Your task to perform on an android device: Open Google Chrome and click the shortcut for Amazon.com Image 0: 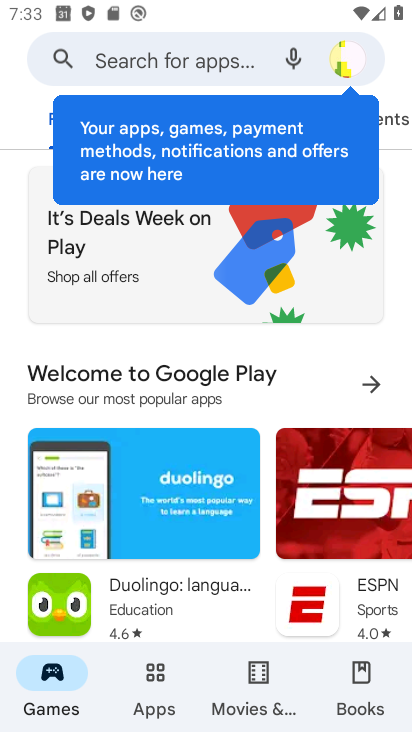
Step 0: press home button
Your task to perform on an android device: Open Google Chrome and click the shortcut for Amazon.com Image 1: 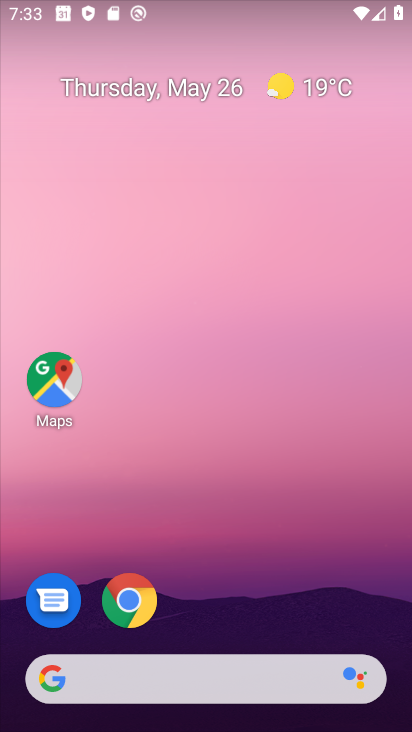
Step 1: drag from (190, 688) to (142, 86)
Your task to perform on an android device: Open Google Chrome and click the shortcut for Amazon.com Image 2: 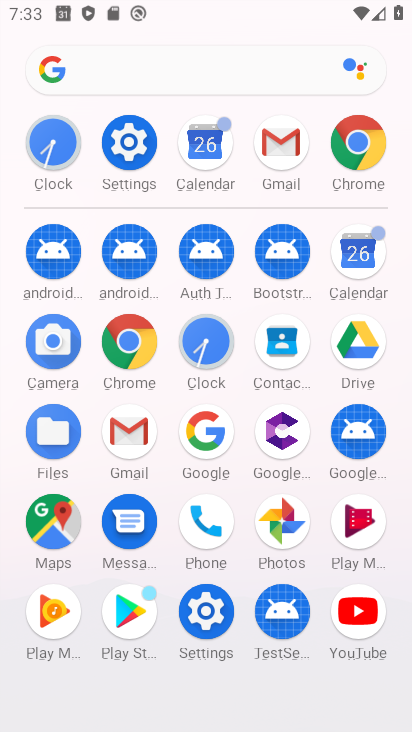
Step 2: click (341, 144)
Your task to perform on an android device: Open Google Chrome and click the shortcut for Amazon.com Image 3: 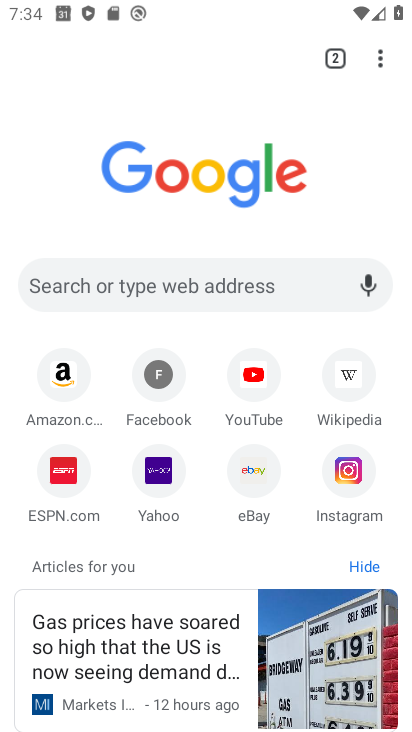
Step 3: click (71, 380)
Your task to perform on an android device: Open Google Chrome and click the shortcut for Amazon.com Image 4: 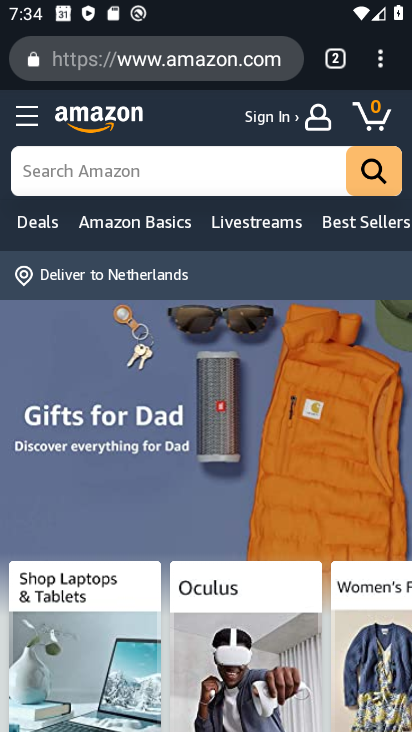
Step 4: click (383, 63)
Your task to perform on an android device: Open Google Chrome and click the shortcut for Amazon.com Image 5: 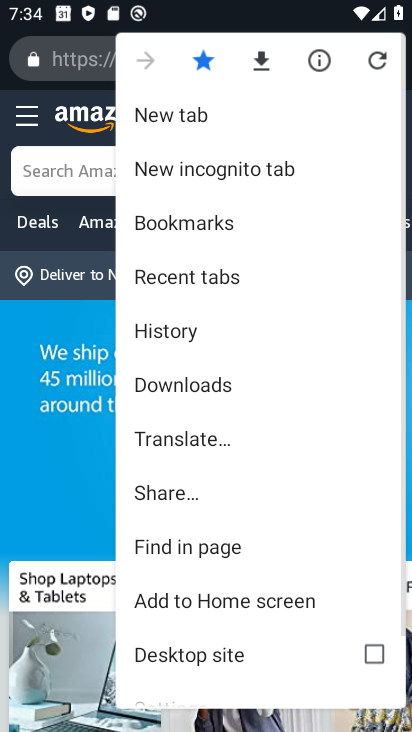
Step 5: click (245, 593)
Your task to perform on an android device: Open Google Chrome and click the shortcut for Amazon.com Image 6: 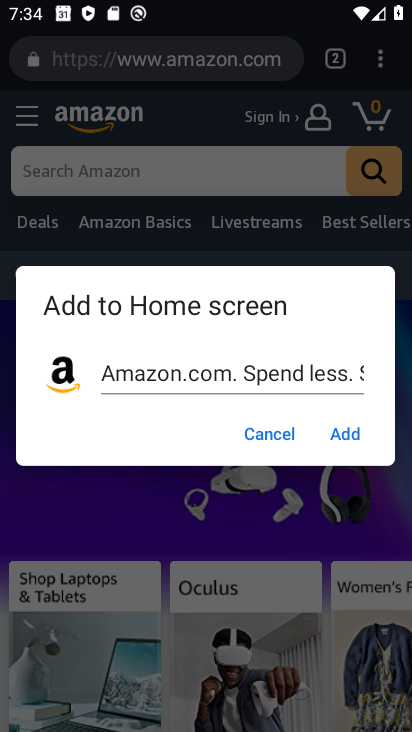
Step 6: click (363, 427)
Your task to perform on an android device: Open Google Chrome and click the shortcut for Amazon.com Image 7: 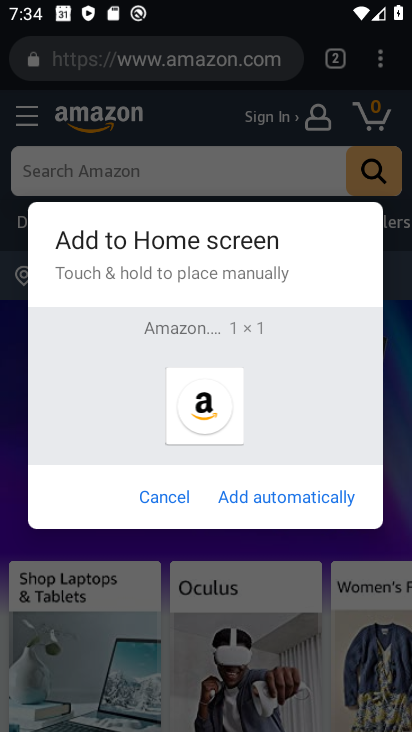
Step 7: click (307, 486)
Your task to perform on an android device: Open Google Chrome and click the shortcut for Amazon.com Image 8: 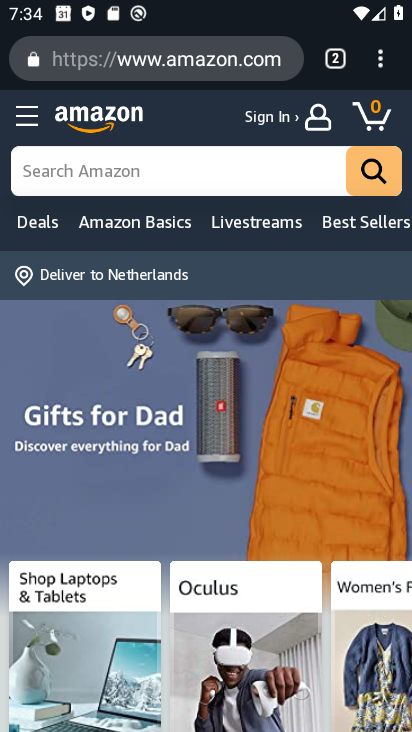
Step 8: task complete